Your task to perform on an android device: Go to Google Image 0: 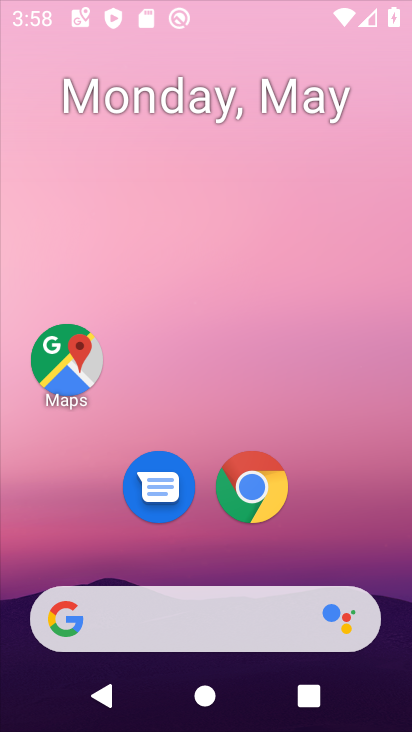
Step 0: click (224, 191)
Your task to perform on an android device: Go to Google Image 1: 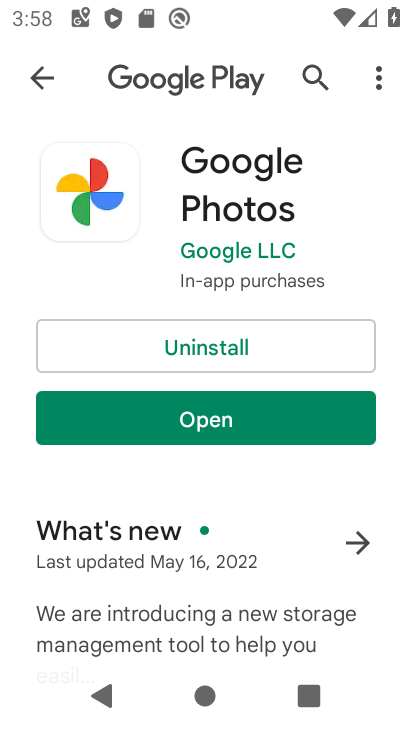
Step 1: press home button
Your task to perform on an android device: Go to Google Image 2: 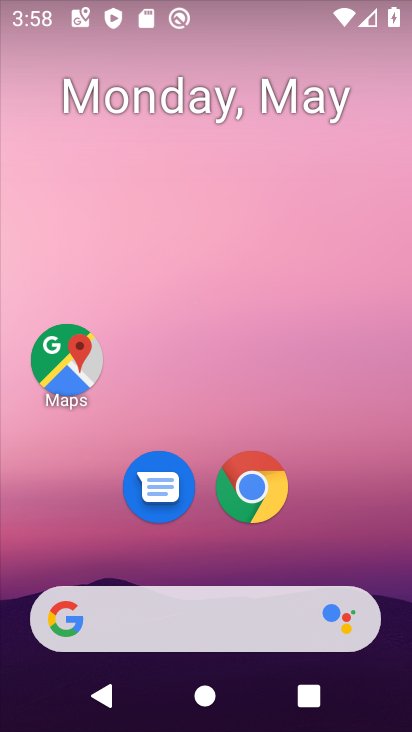
Step 2: drag from (168, 579) to (211, 217)
Your task to perform on an android device: Go to Google Image 3: 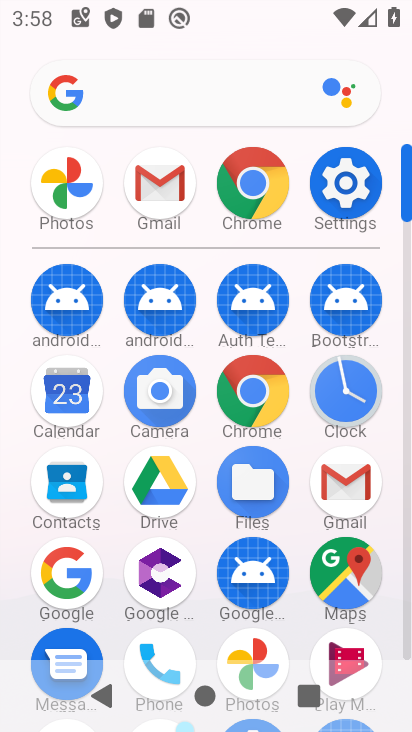
Step 3: click (76, 575)
Your task to perform on an android device: Go to Google Image 4: 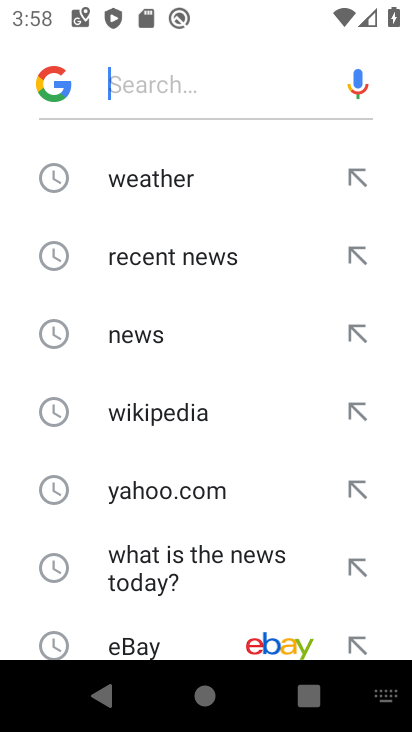
Step 4: task complete